Your task to perform on an android device: install app "Adobe Acrobat Reader" Image 0: 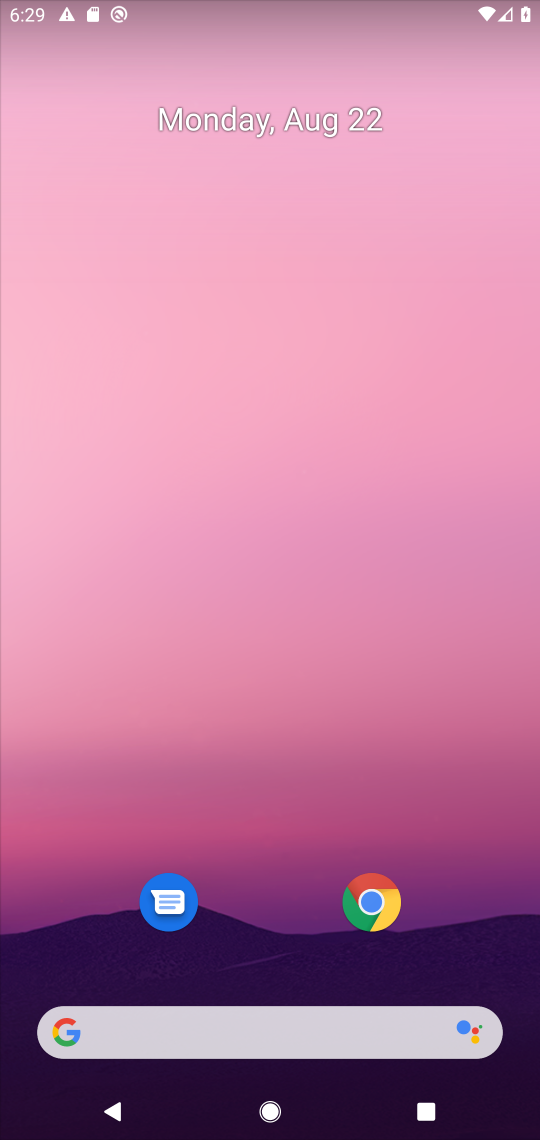
Step 0: drag from (264, 862) to (260, 272)
Your task to perform on an android device: install app "Adobe Acrobat Reader" Image 1: 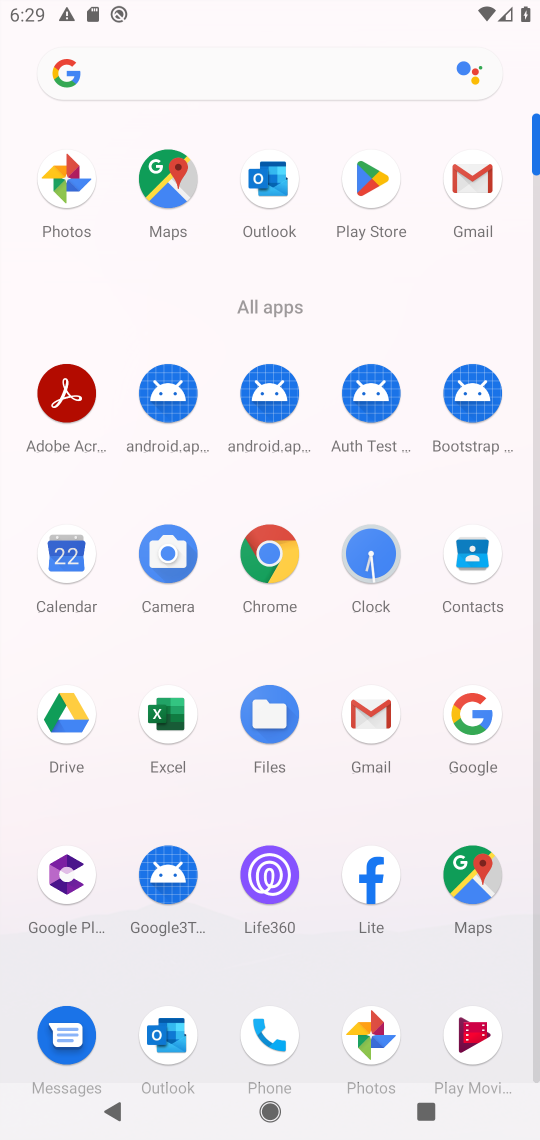
Step 1: click (364, 177)
Your task to perform on an android device: install app "Adobe Acrobat Reader" Image 2: 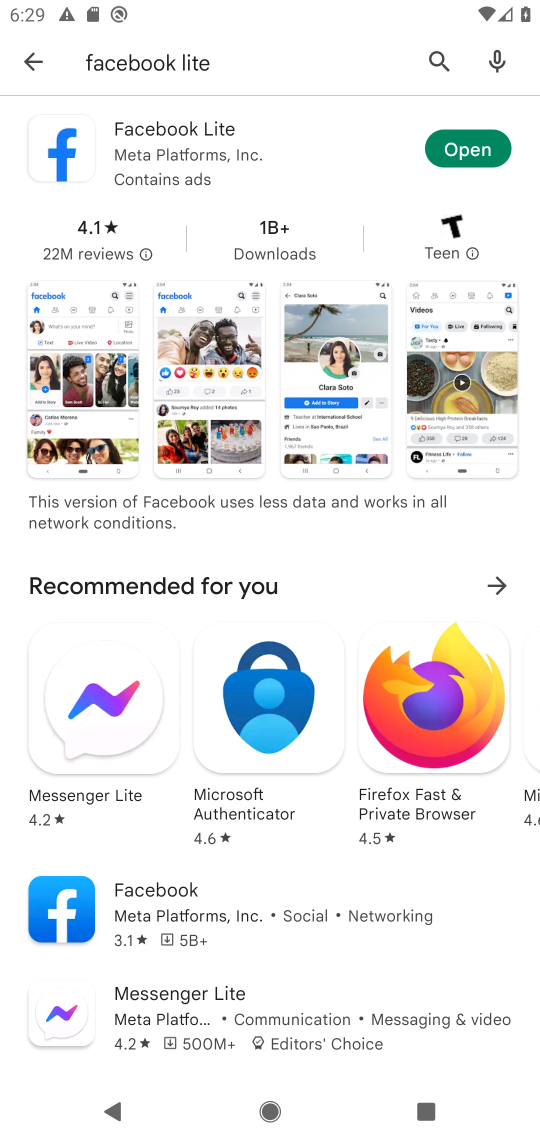
Step 2: click (25, 68)
Your task to perform on an android device: install app "Adobe Acrobat Reader" Image 3: 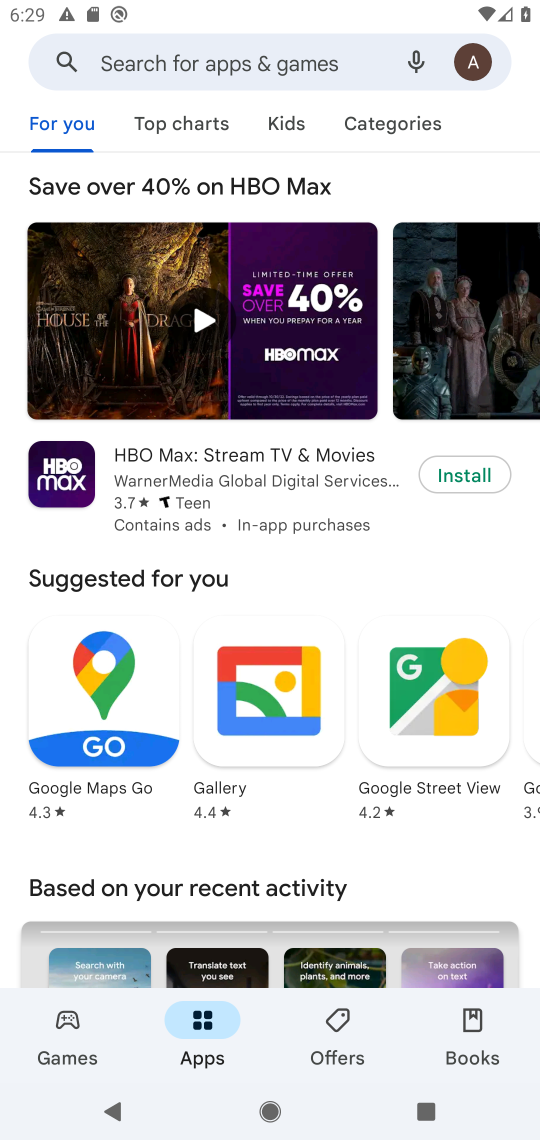
Step 3: click (184, 62)
Your task to perform on an android device: install app "Adobe Acrobat Reader" Image 4: 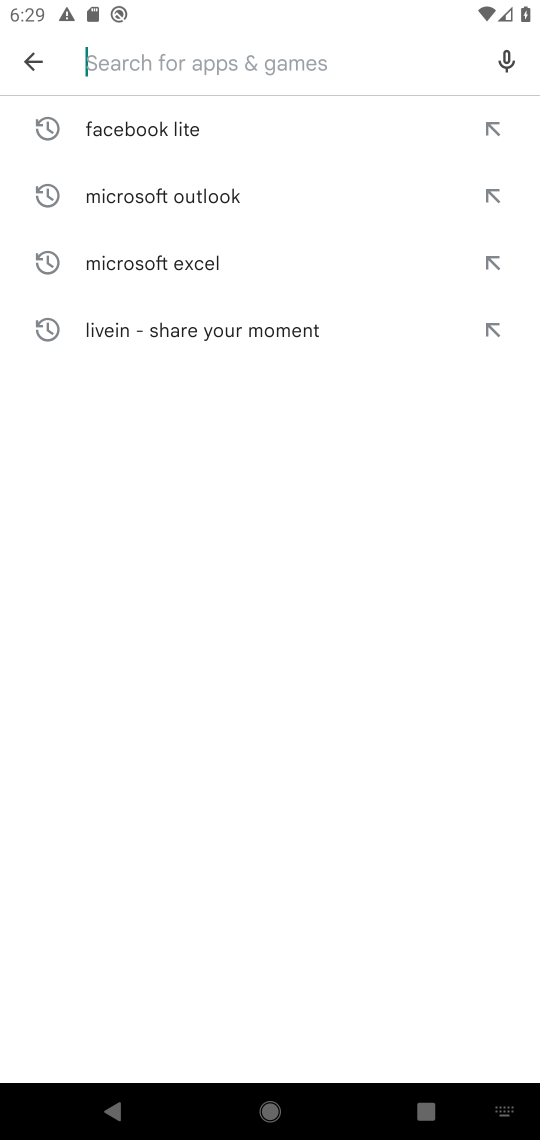
Step 4: type "Adobe Acrobat Reader"
Your task to perform on an android device: install app "Adobe Acrobat Reader" Image 5: 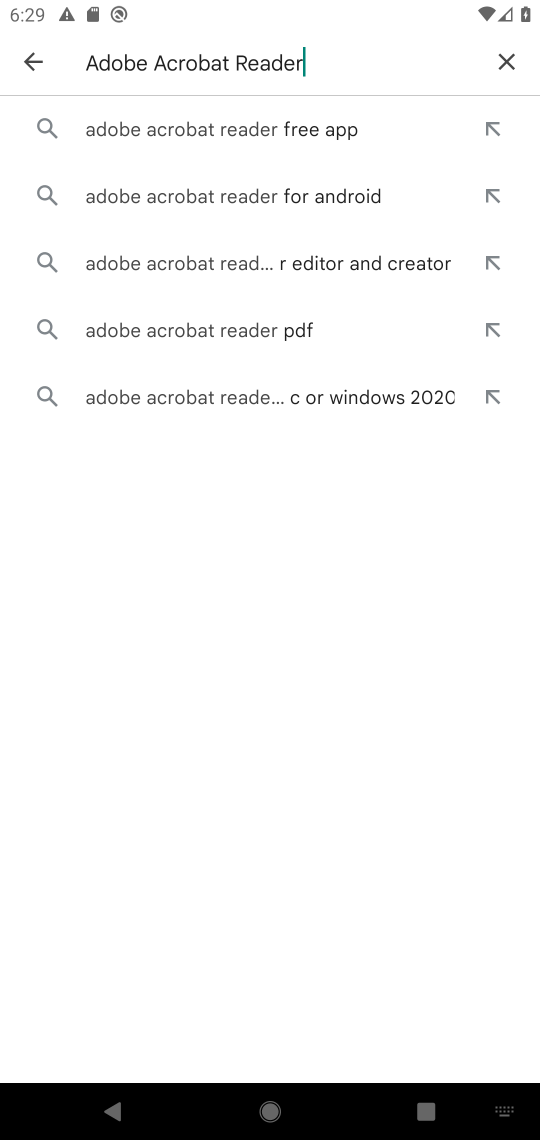
Step 5: click (213, 138)
Your task to perform on an android device: install app "Adobe Acrobat Reader" Image 6: 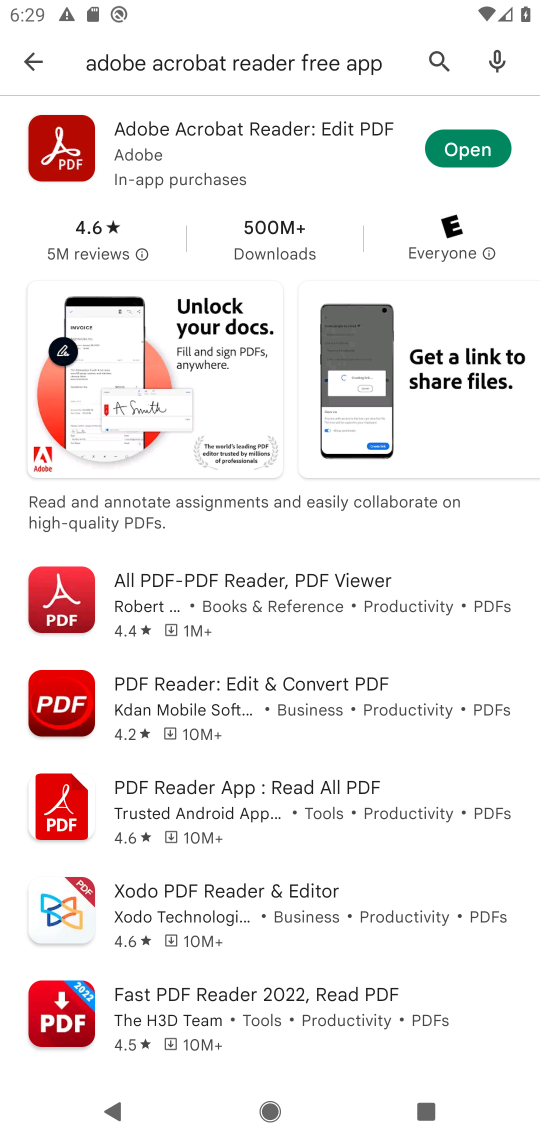
Step 6: click (491, 138)
Your task to perform on an android device: install app "Adobe Acrobat Reader" Image 7: 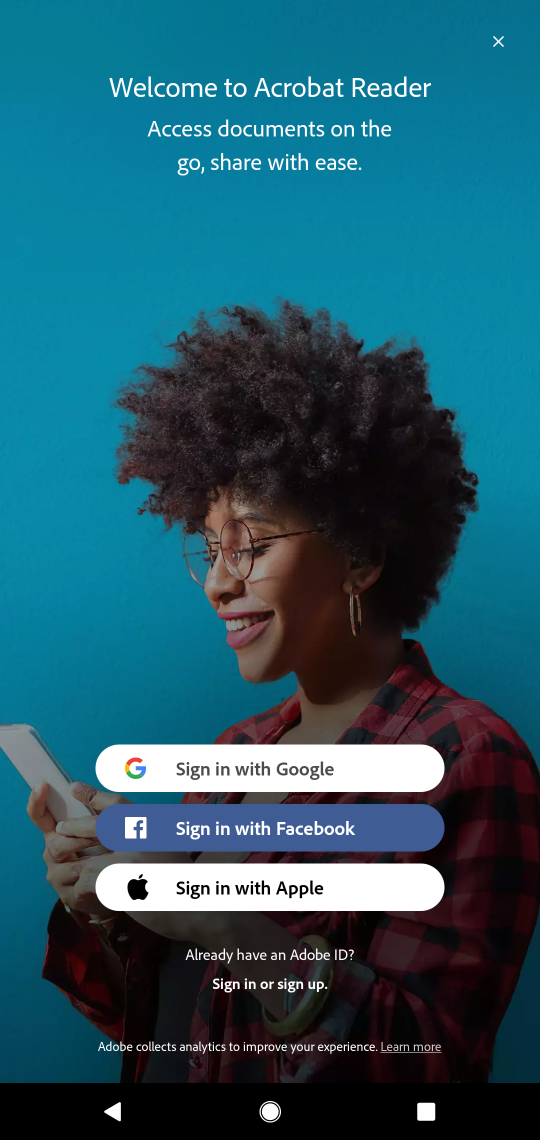
Step 7: task complete